Your task to perform on an android device: see tabs open on other devices in the chrome app Image 0: 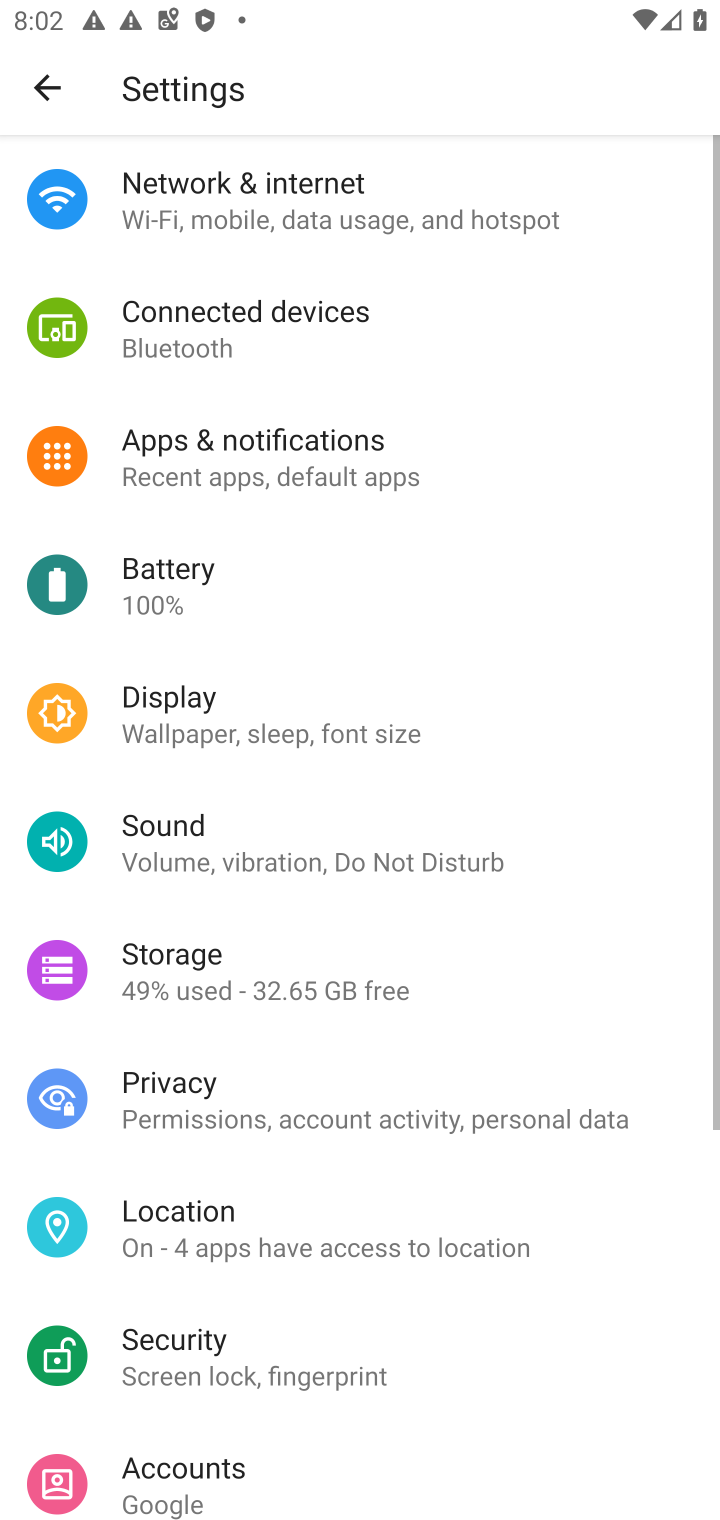
Step 0: press home button
Your task to perform on an android device: see tabs open on other devices in the chrome app Image 1: 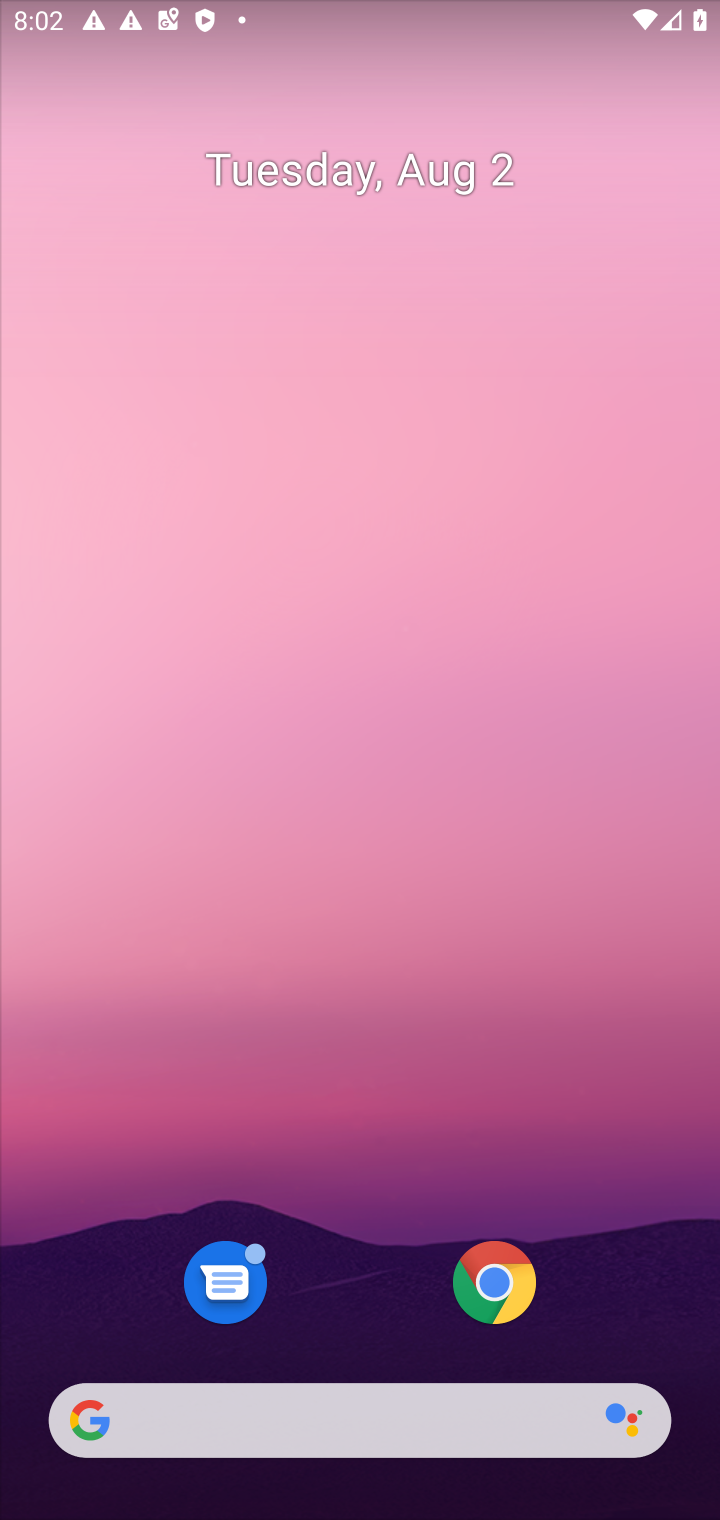
Step 1: drag from (434, 1284) to (686, 439)
Your task to perform on an android device: see tabs open on other devices in the chrome app Image 2: 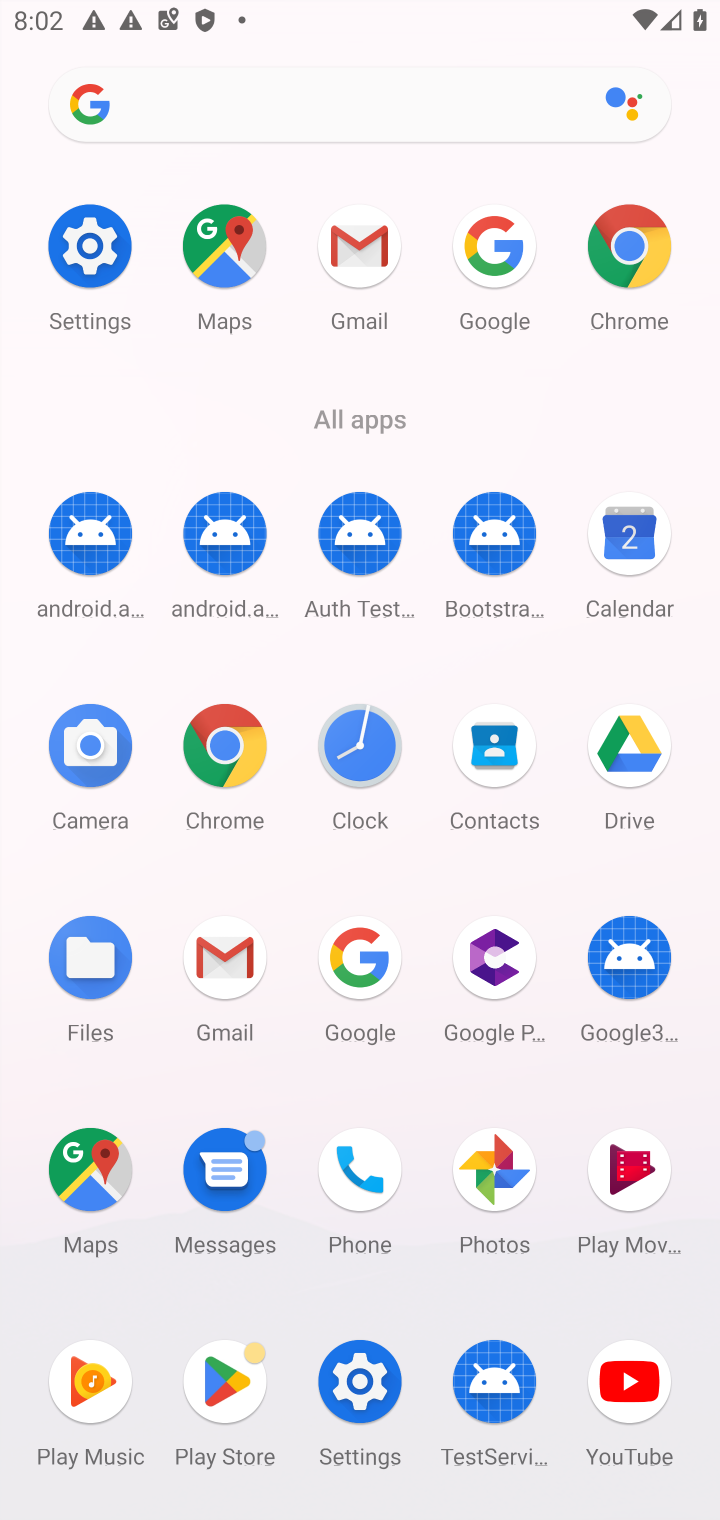
Step 2: click (224, 781)
Your task to perform on an android device: see tabs open on other devices in the chrome app Image 3: 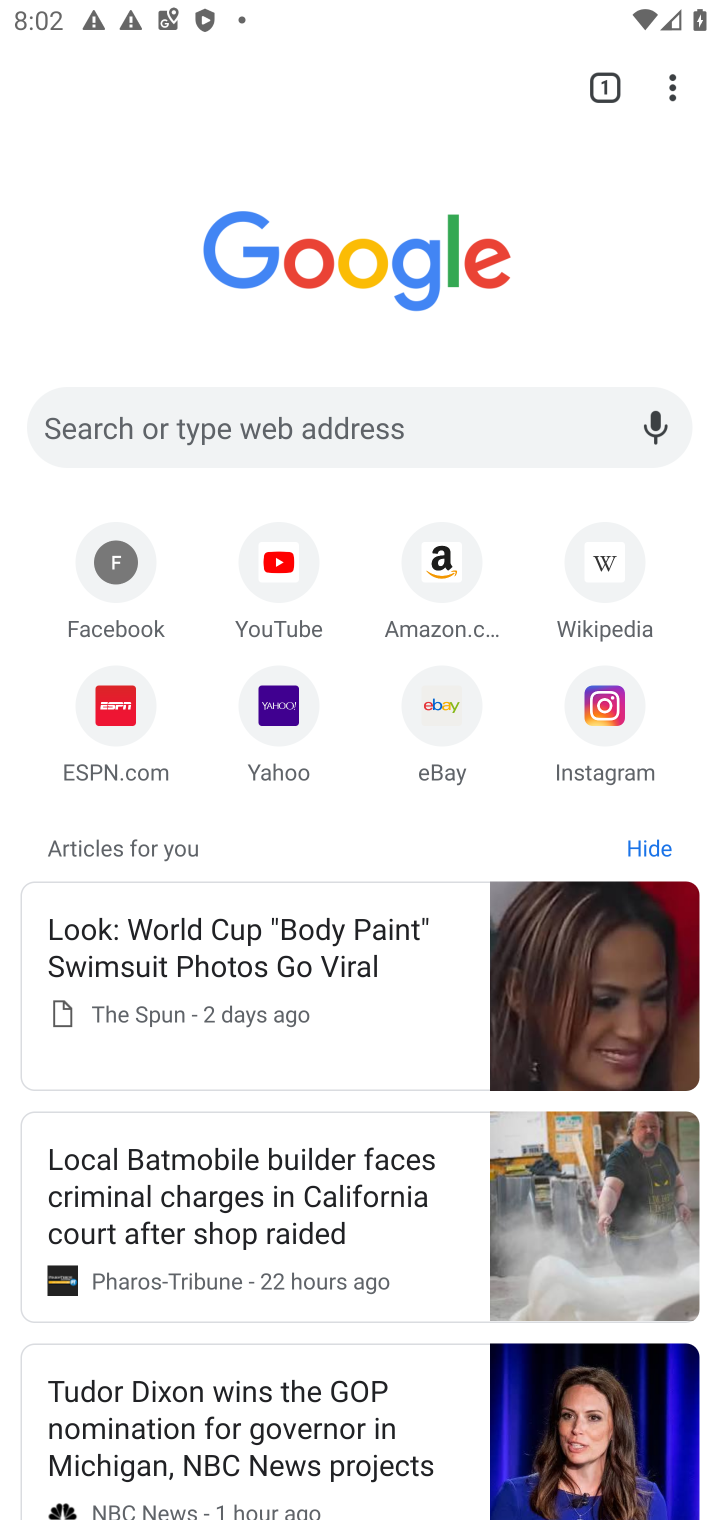
Step 3: click (572, 74)
Your task to perform on an android device: see tabs open on other devices in the chrome app Image 4: 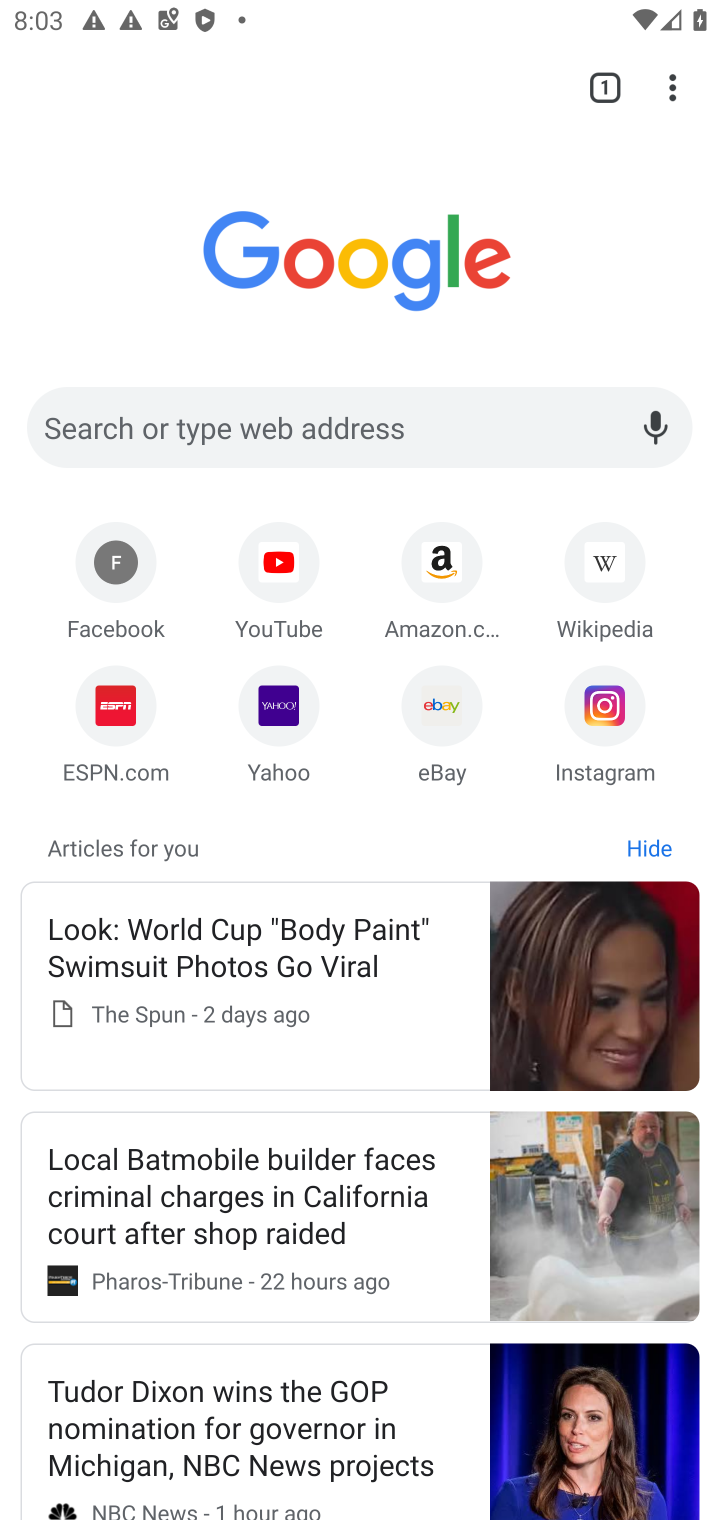
Step 4: click (583, 83)
Your task to perform on an android device: see tabs open on other devices in the chrome app Image 5: 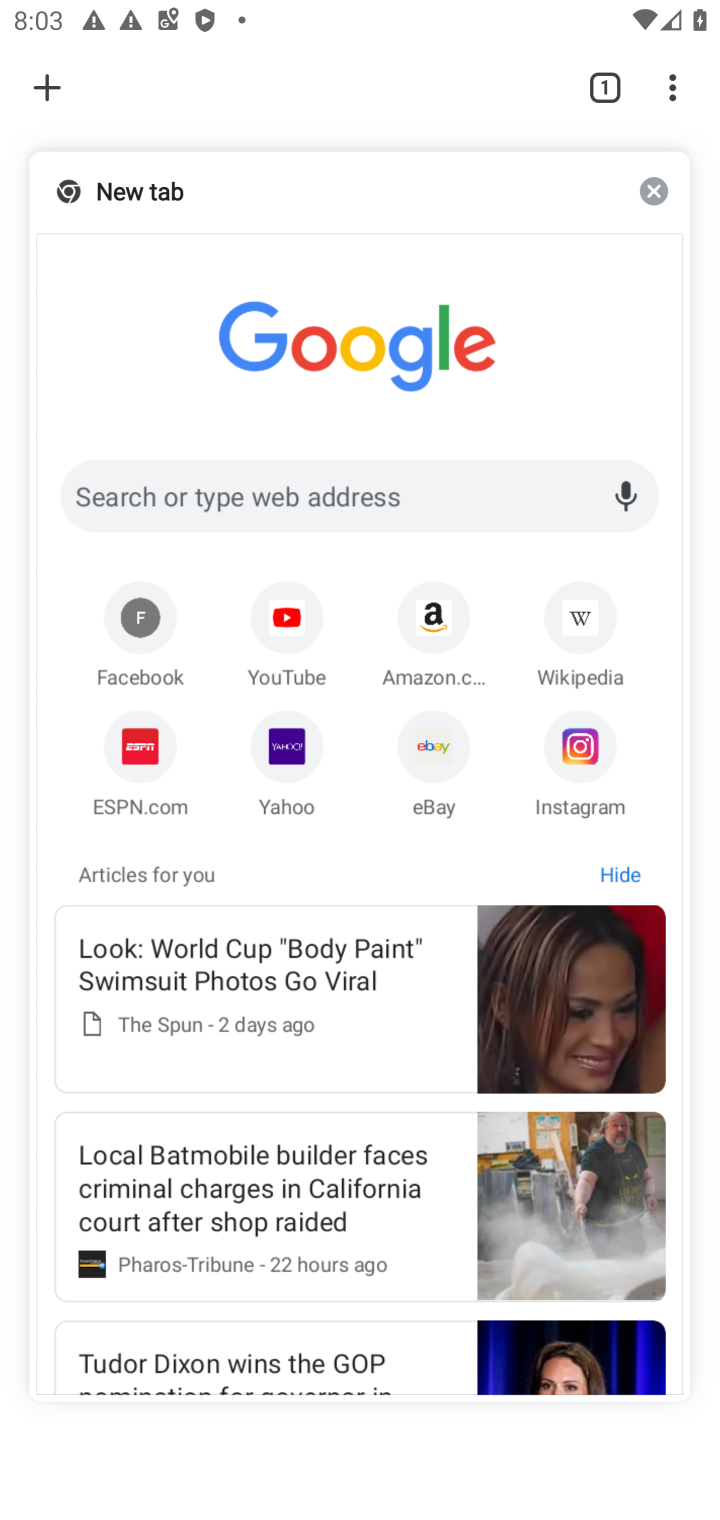
Step 5: click (46, 80)
Your task to perform on an android device: see tabs open on other devices in the chrome app Image 6: 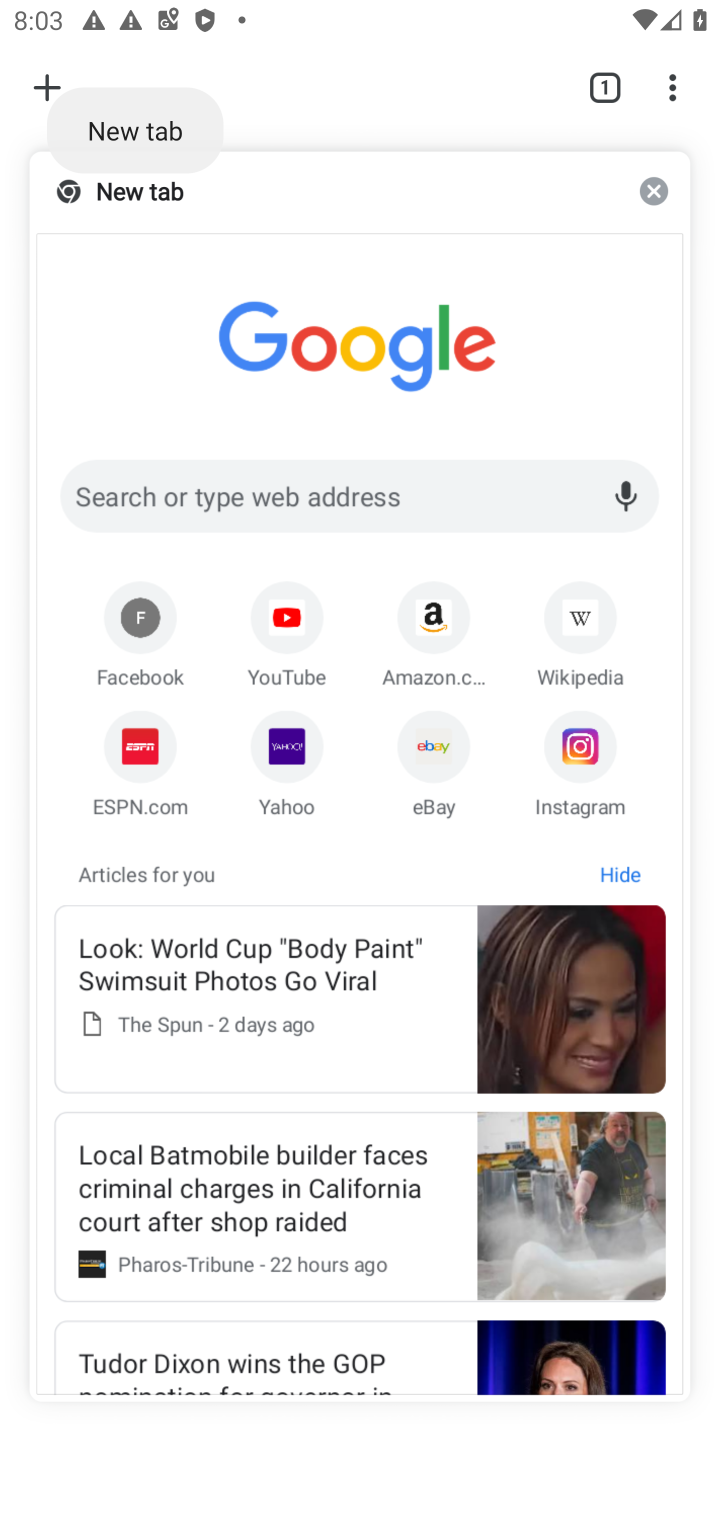
Step 6: task complete